Your task to perform on an android device: see creations saved in the google photos Image 0: 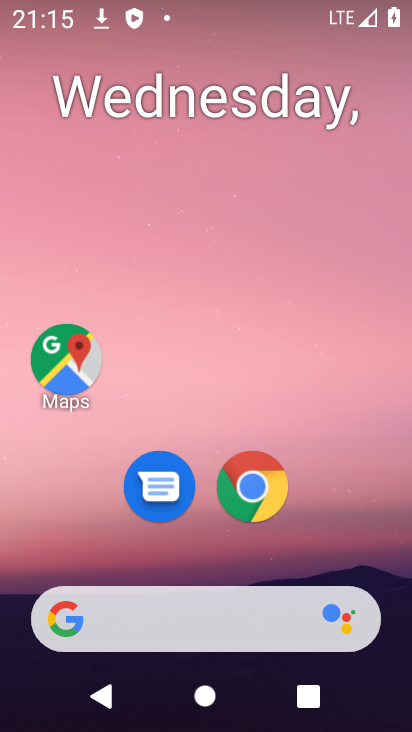
Step 0: drag from (146, 568) to (206, 65)
Your task to perform on an android device: see creations saved in the google photos Image 1: 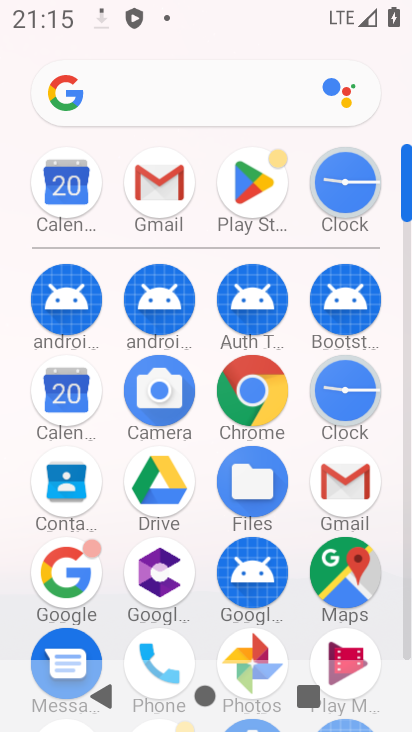
Step 1: click (263, 635)
Your task to perform on an android device: see creations saved in the google photos Image 2: 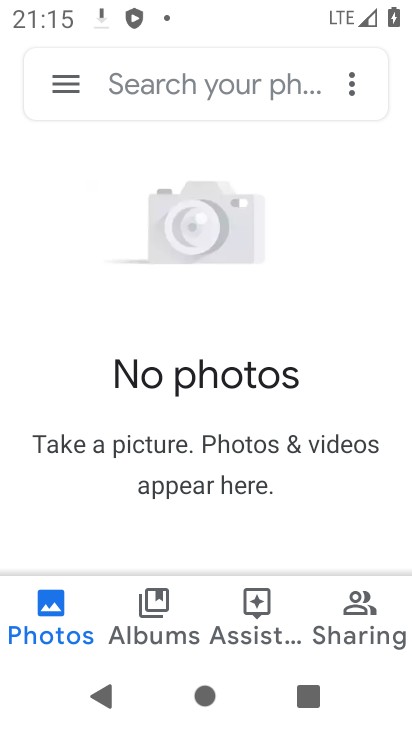
Step 2: click (57, 75)
Your task to perform on an android device: see creations saved in the google photos Image 3: 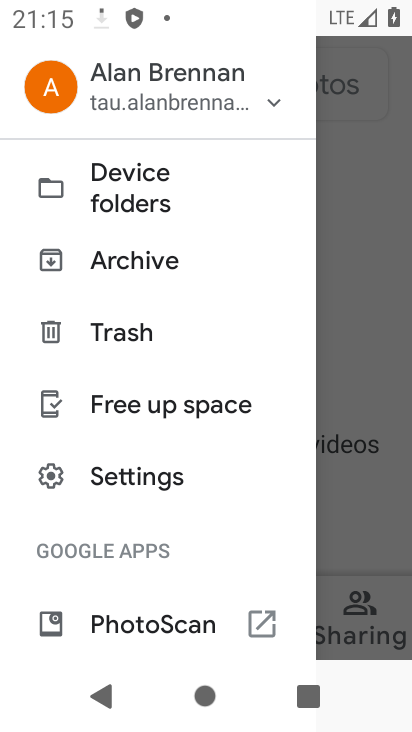
Step 3: click (148, 254)
Your task to perform on an android device: see creations saved in the google photos Image 4: 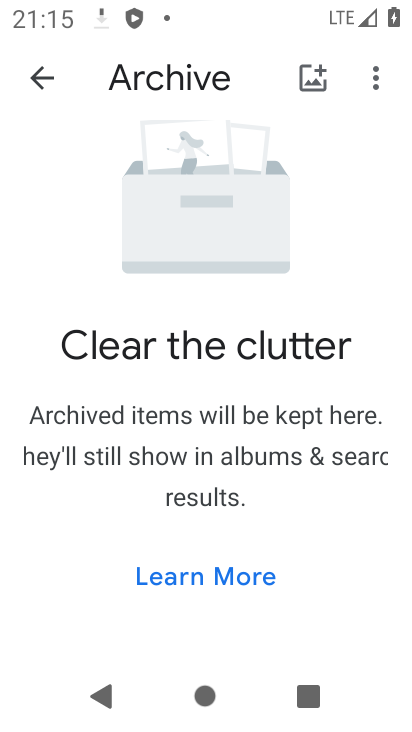
Step 4: task complete